Your task to perform on an android device: Do I have any events tomorrow? Image 0: 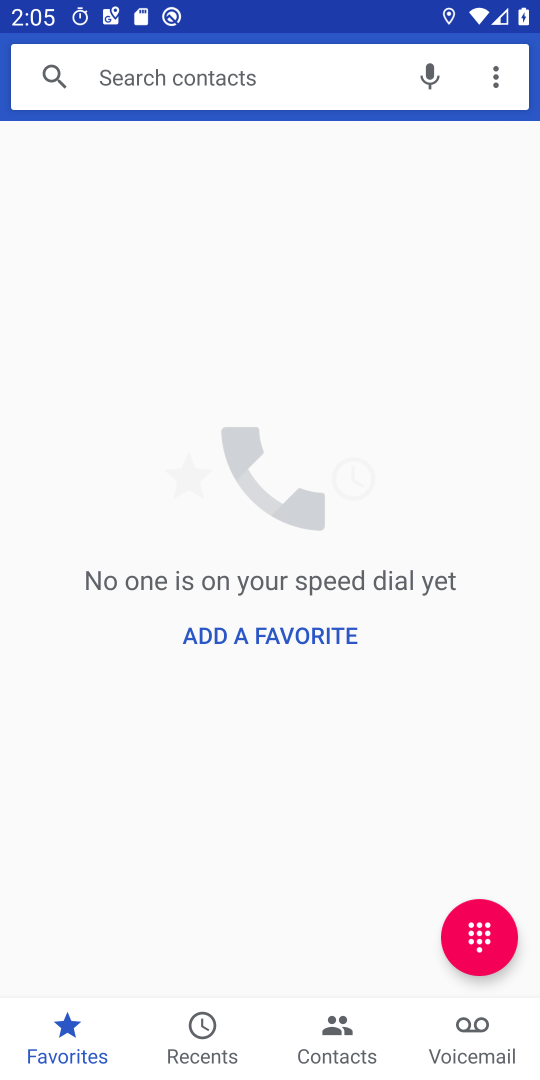
Step 0: press home button
Your task to perform on an android device: Do I have any events tomorrow? Image 1: 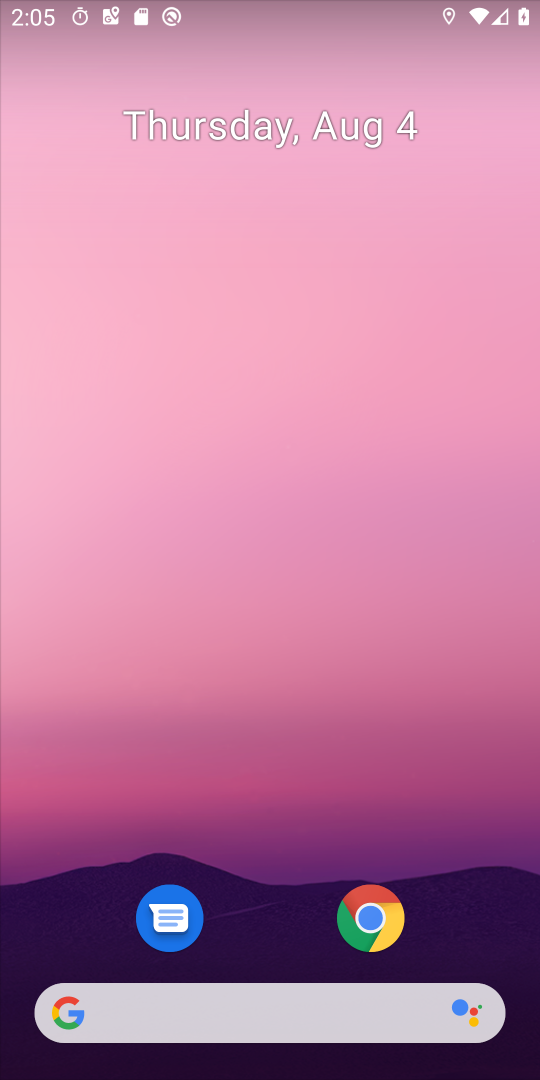
Step 1: drag from (266, 915) to (272, 258)
Your task to perform on an android device: Do I have any events tomorrow? Image 2: 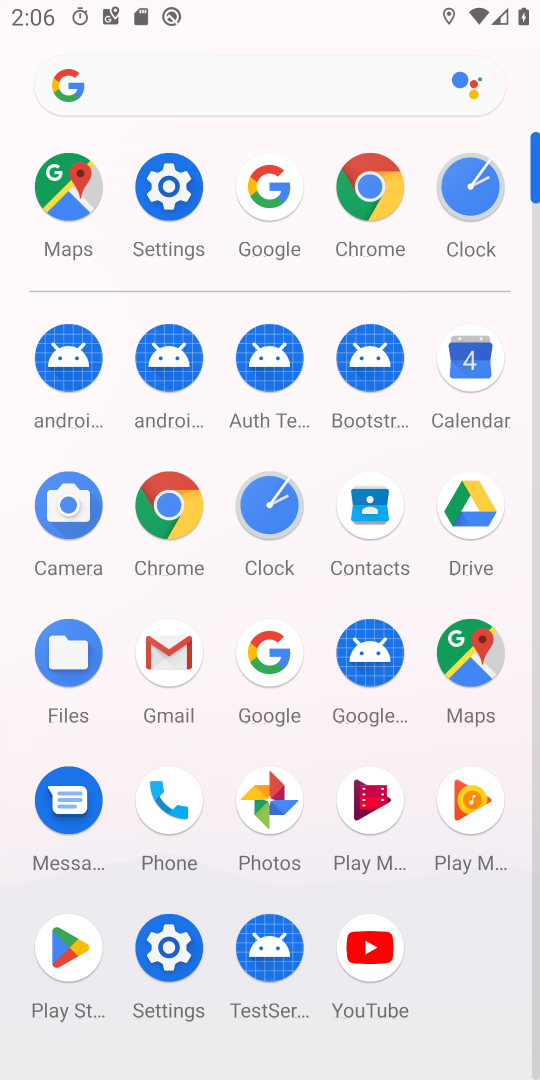
Step 2: click (448, 343)
Your task to perform on an android device: Do I have any events tomorrow? Image 3: 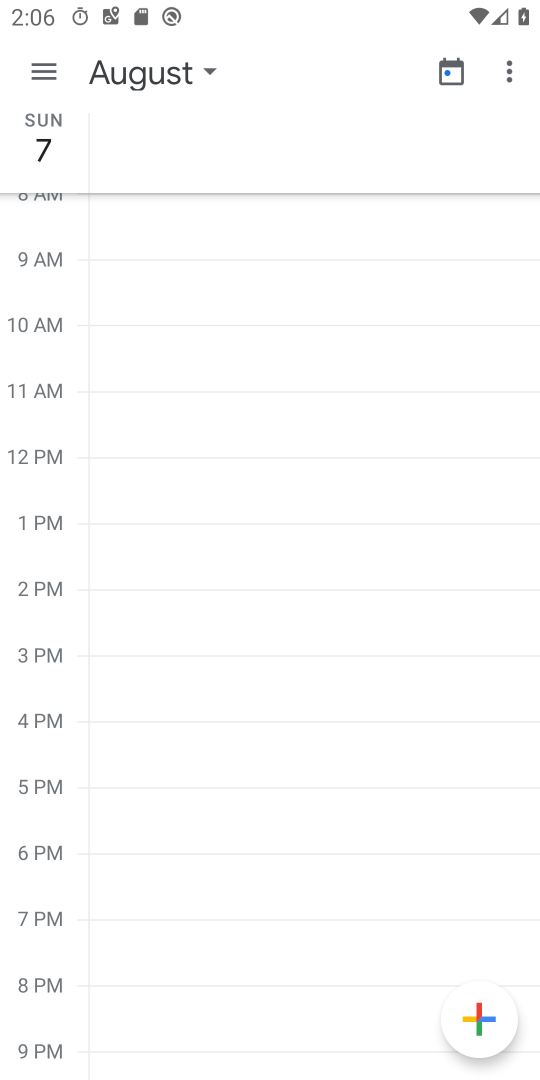
Step 3: task complete